Your task to perform on an android device: delete browsing data in the chrome app Image 0: 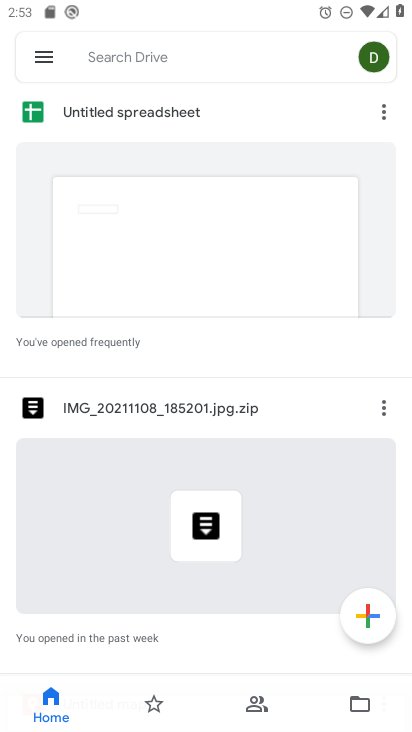
Step 0: press home button
Your task to perform on an android device: delete browsing data in the chrome app Image 1: 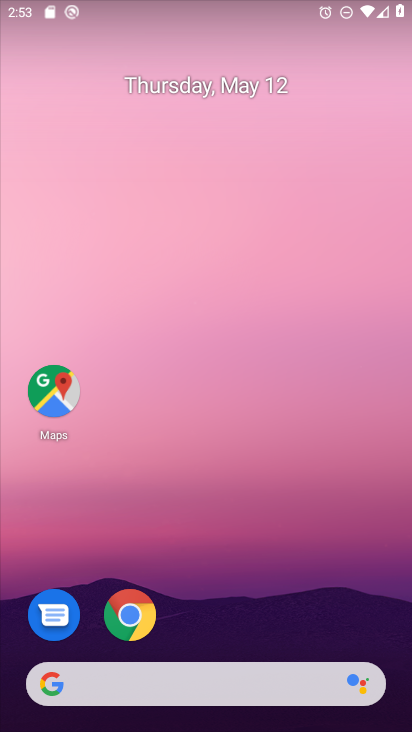
Step 1: drag from (293, 627) to (296, 58)
Your task to perform on an android device: delete browsing data in the chrome app Image 2: 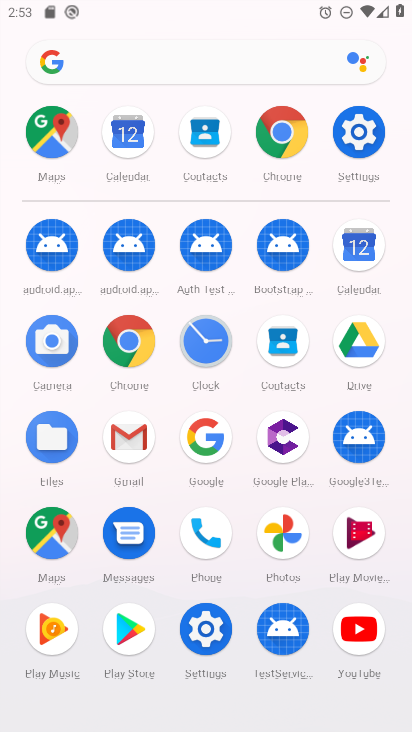
Step 2: click (146, 343)
Your task to perform on an android device: delete browsing data in the chrome app Image 3: 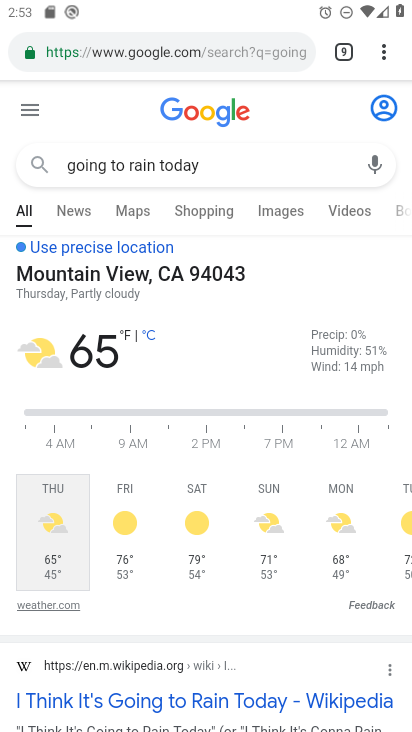
Step 3: drag from (383, 52) to (217, 593)
Your task to perform on an android device: delete browsing data in the chrome app Image 4: 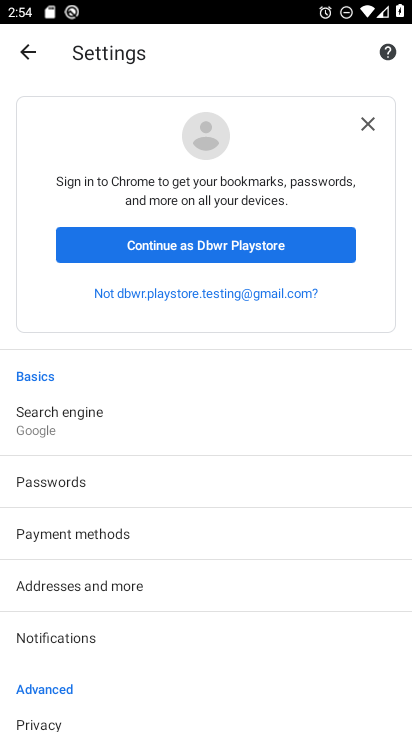
Step 4: drag from (142, 676) to (204, 347)
Your task to perform on an android device: delete browsing data in the chrome app Image 5: 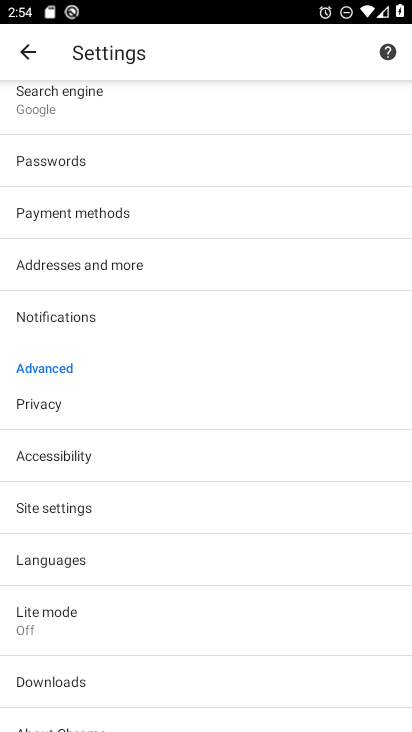
Step 5: click (127, 402)
Your task to perform on an android device: delete browsing data in the chrome app Image 6: 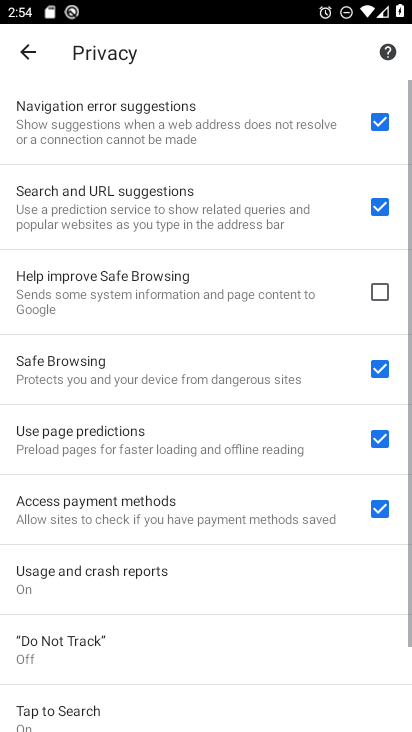
Step 6: drag from (180, 648) to (268, 121)
Your task to perform on an android device: delete browsing data in the chrome app Image 7: 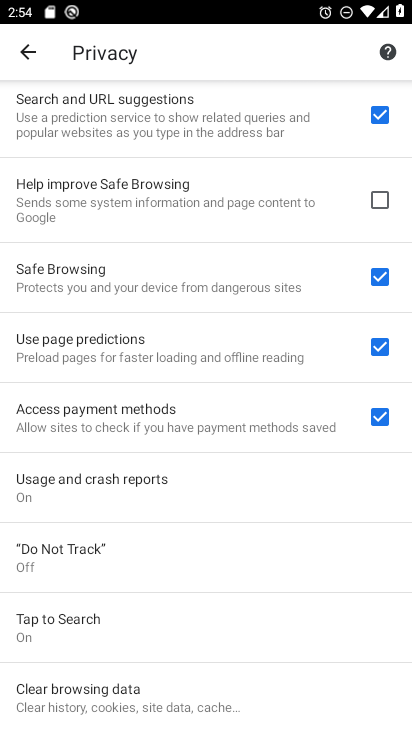
Step 7: click (196, 718)
Your task to perform on an android device: delete browsing data in the chrome app Image 8: 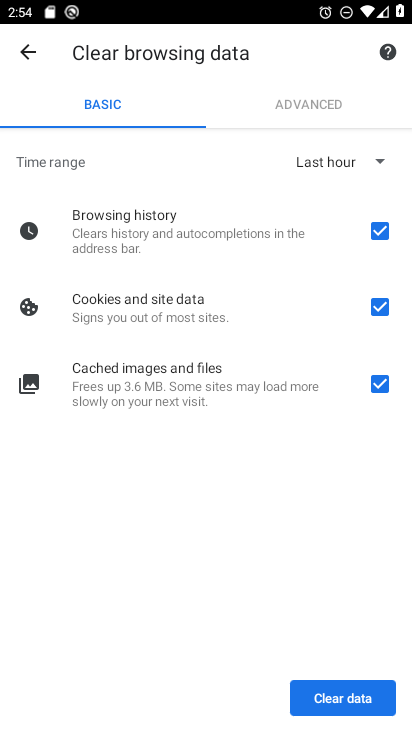
Step 8: click (360, 686)
Your task to perform on an android device: delete browsing data in the chrome app Image 9: 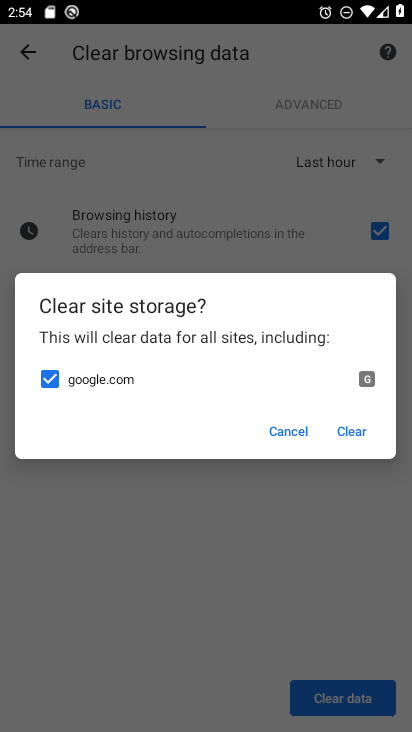
Step 9: click (360, 429)
Your task to perform on an android device: delete browsing data in the chrome app Image 10: 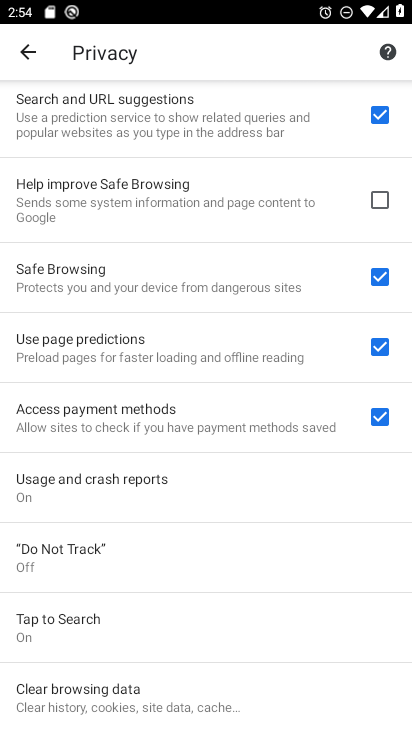
Step 10: click (180, 685)
Your task to perform on an android device: delete browsing data in the chrome app Image 11: 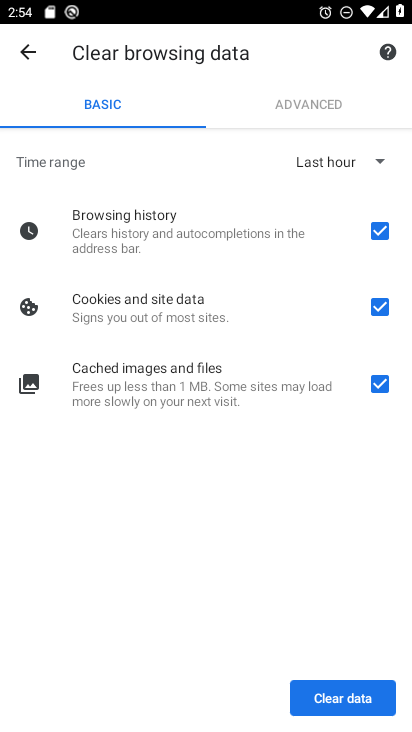
Step 11: click (321, 695)
Your task to perform on an android device: delete browsing data in the chrome app Image 12: 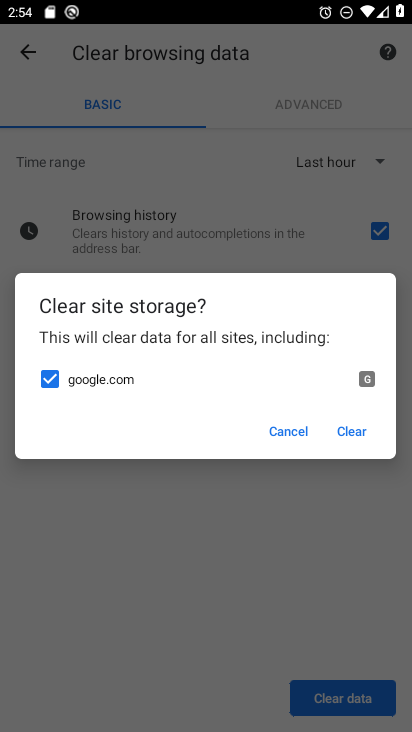
Step 12: click (353, 434)
Your task to perform on an android device: delete browsing data in the chrome app Image 13: 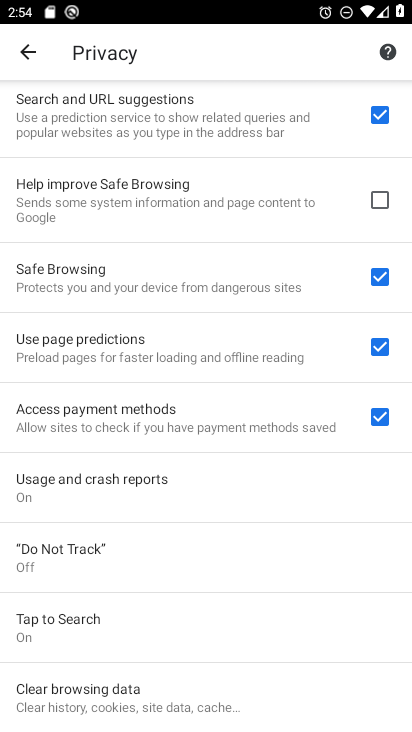
Step 13: task complete